Your task to perform on an android device: Search for sushi restaurants on Maps Image 0: 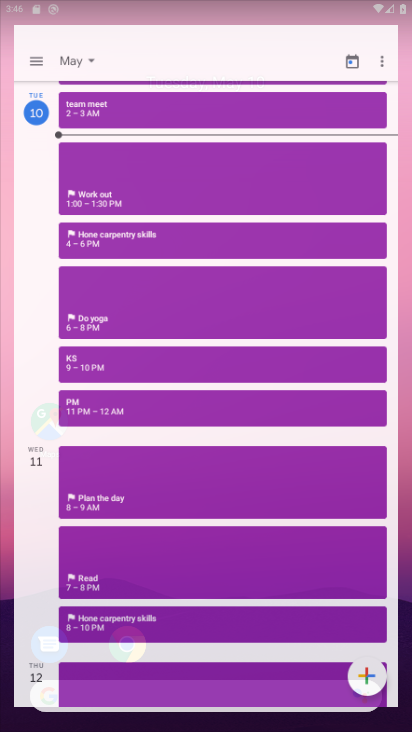
Step 0: drag from (214, 654) to (283, 4)
Your task to perform on an android device: Search for sushi restaurants on Maps Image 1: 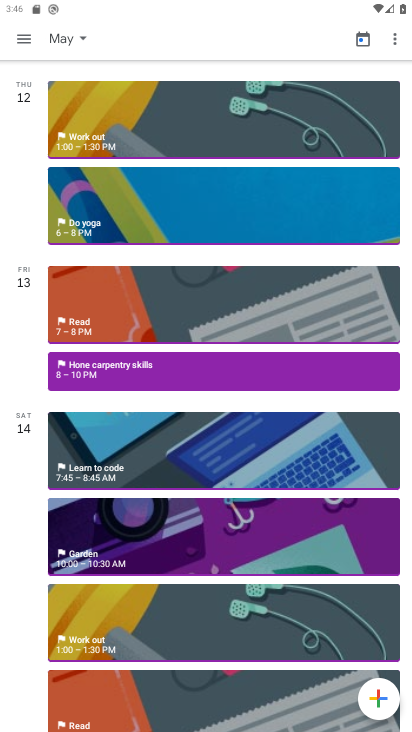
Step 1: press home button
Your task to perform on an android device: Search for sushi restaurants on Maps Image 2: 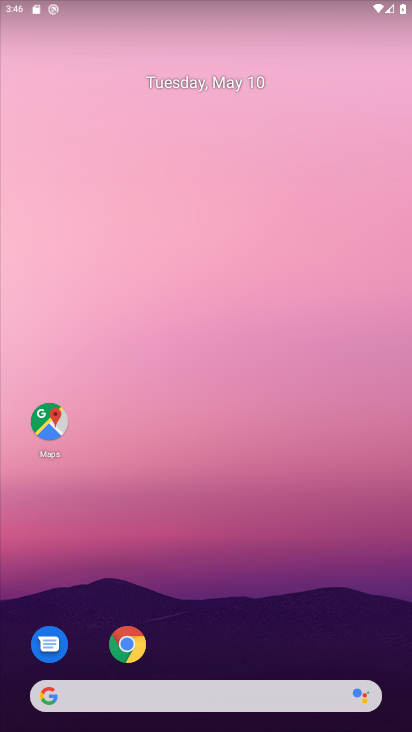
Step 2: drag from (214, 655) to (242, 77)
Your task to perform on an android device: Search for sushi restaurants on Maps Image 3: 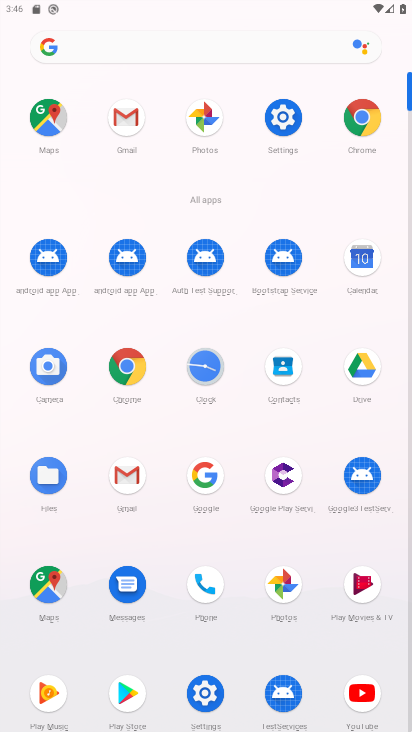
Step 3: click (45, 588)
Your task to perform on an android device: Search for sushi restaurants on Maps Image 4: 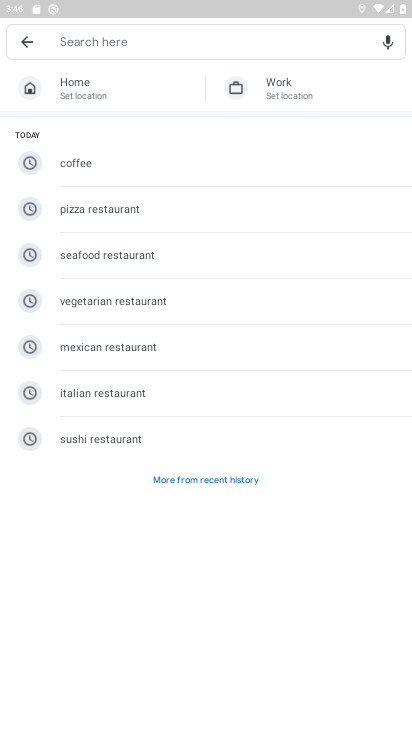
Step 4: click (108, 440)
Your task to perform on an android device: Search for sushi restaurants on Maps Image 5: 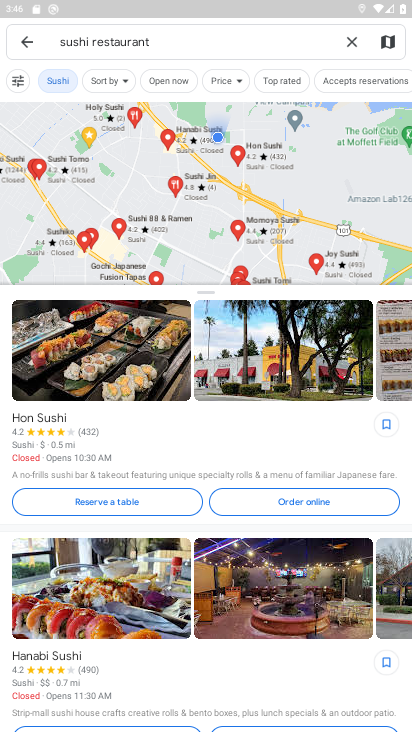
Step 5: task complete